Your task to perform on an android device: turn on improve location accuracy Image 0: 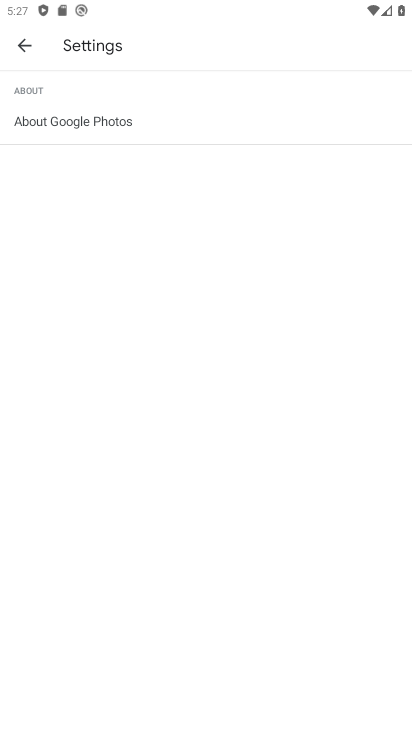
Step 0: press home button
Your task to perform on an android device: turn on improve location accuracy Image 1: 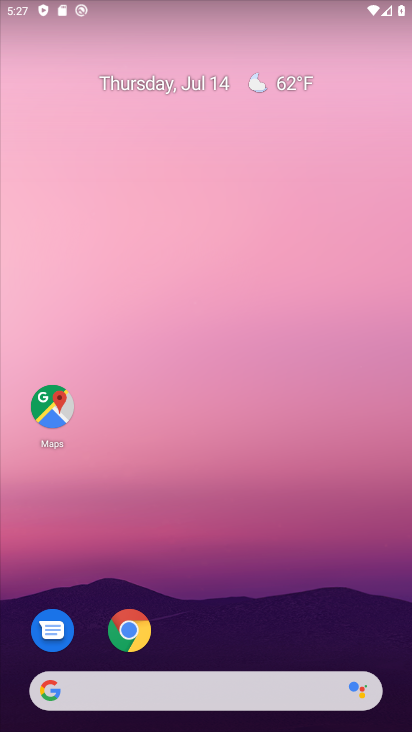
Step 1: drag from (217, 610) to (196, 116)
Your task to perform on an android device: turn on improve location accuracy Image 2: 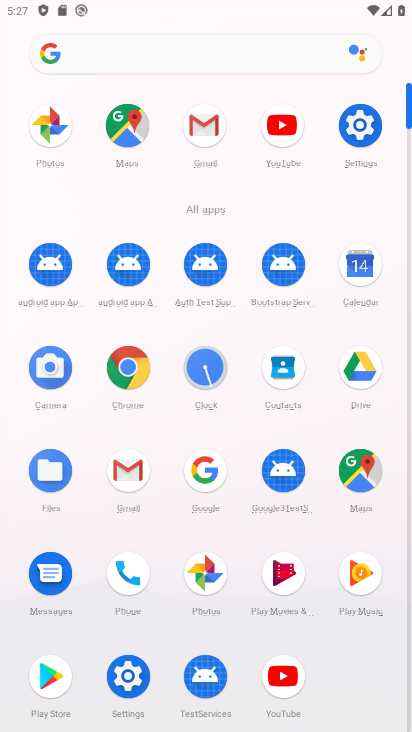
Step 2: click (378, 120)
Your task to perform on an android device: turn on improve location accuracy Image 3: 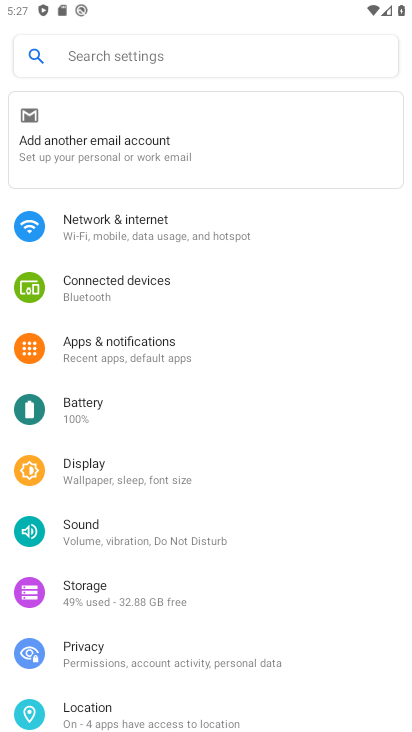
Step 3: click (69, 707)
Your task to perform on an android device: turn on improve location accuracy Image 4: 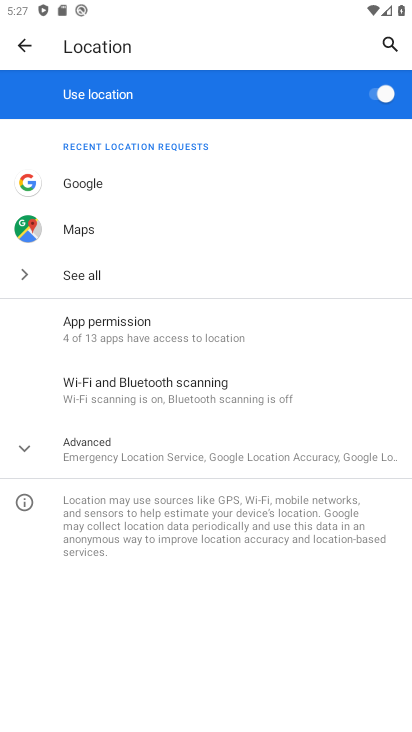
Step 4: click (181, 455)
Your task to perform on an android device: turn on improve location accuracy Image 5: 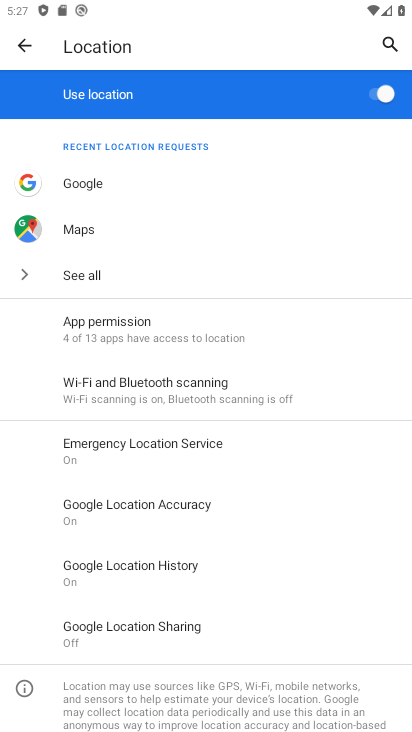
Step 5: click (189, 496)
Your task to perform on an android device: turn on improve location accuracy Image 6: 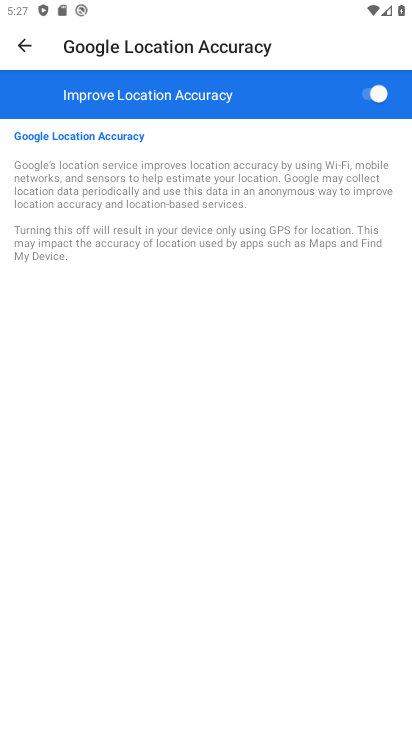
Step 6: task complete